Your task to perform on an android device: change the clock display to analog Image 0: 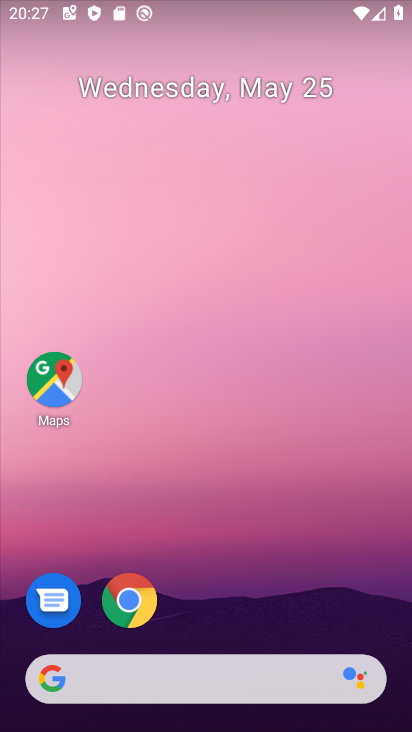
Step 0: drag from (339, 598) to (304, 213)
Your task to perform on an android device: change the clock display to analog Image 1: 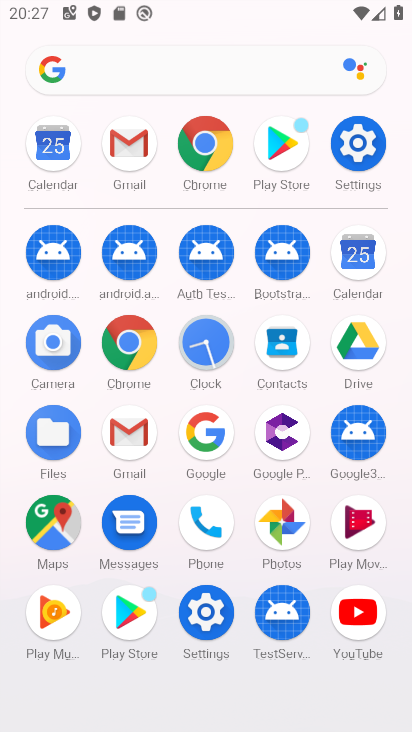
Step 1: click (197, 355)
Your task to perform on an android device: change the clock display to analog Image 2: 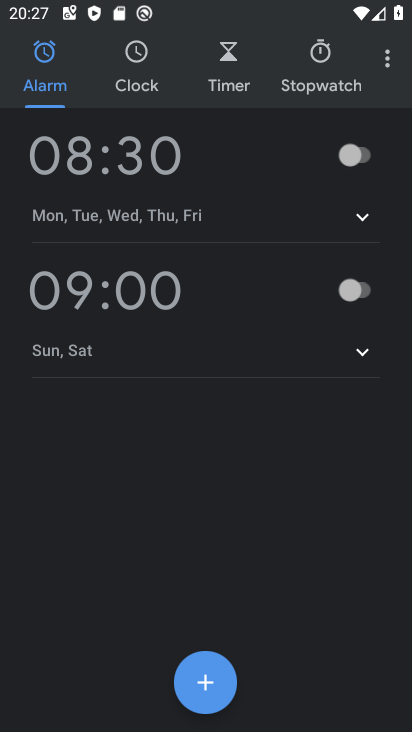
Step 2: click (393, 53)
Your task to perform on an android device: change the clock display to analog Image 3: 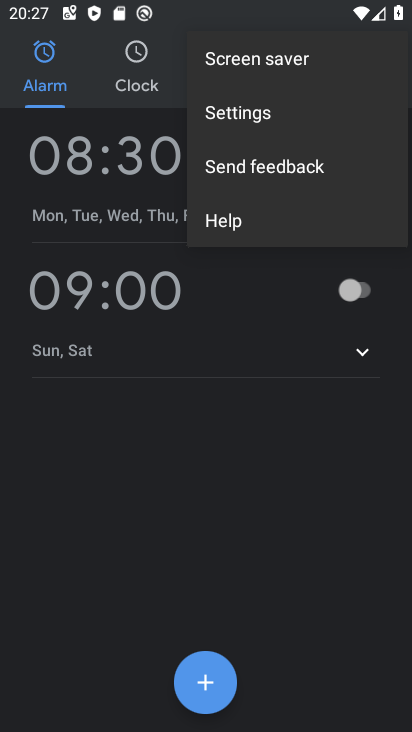
Step 3: click (261, 118)
Your task to perform on an android device: change the clock display to analog Image 4: 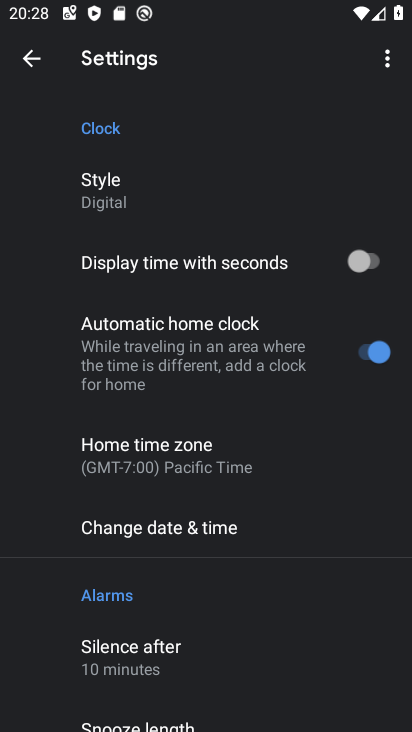
Step 4: click (147, 179)
Your task to perform on an android device: change the clock display to analog Image 5: 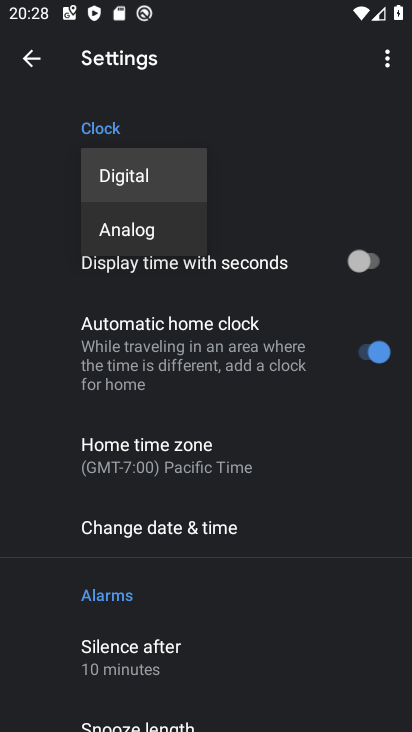
Step 5: click (149, 230)
Your task to perform on an android device: change the clock display to analog Image 6: 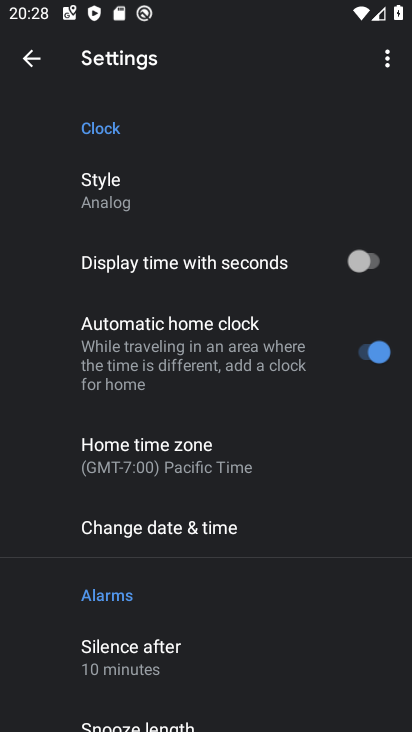
Step 6: task complete